Your task to perform on an android device: Go to Google Image 0: 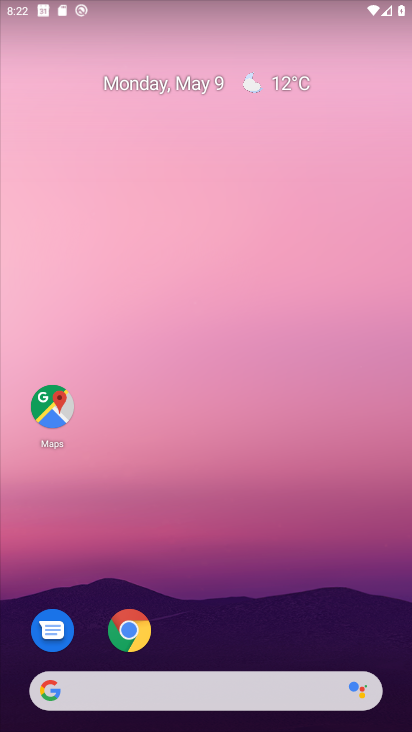
Step 0: click (205, 677)
Your task to perform on an android device: Go to Google Image 1: 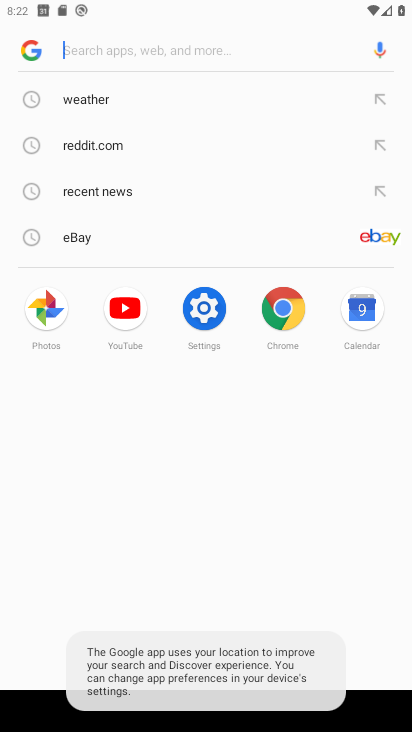
Step 1: click (24, 47)
Your task to perform on an android device: Go to Google Image 2: 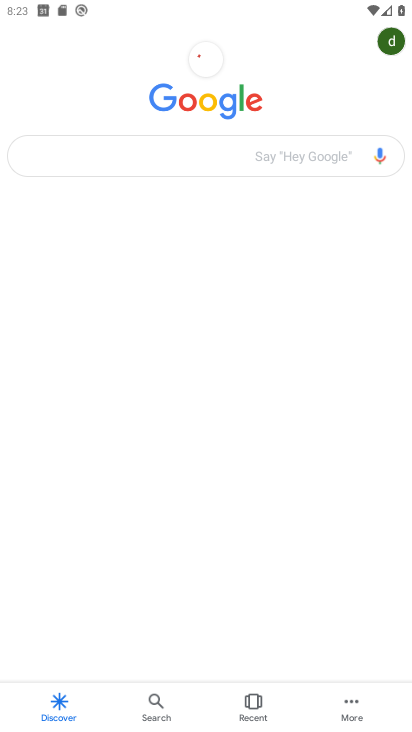
Step 2: task complete